Your task to perform on an android device: toggle sleep mode Image 0: 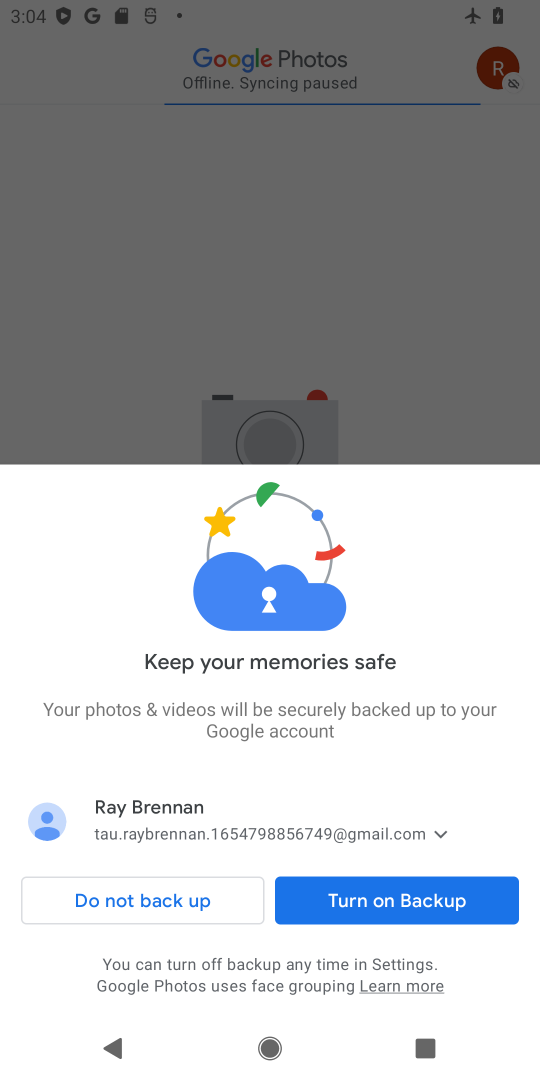
Step 0: press home button
Your task to perform on an android device: toggle sleep mode Image 1: 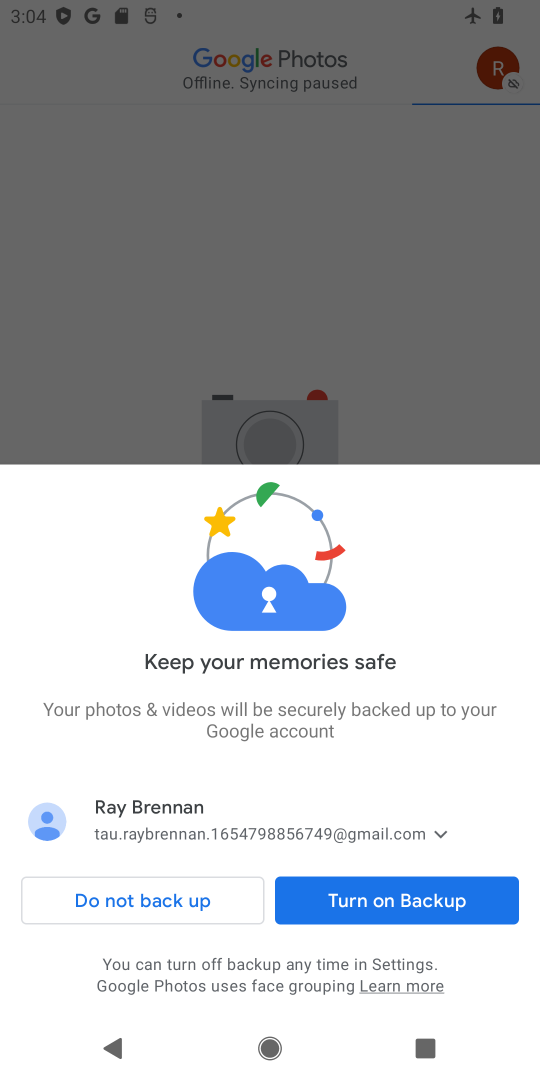
Step 1: press home button
Your task to perform on an android device: toggle sleep mode Image 2: 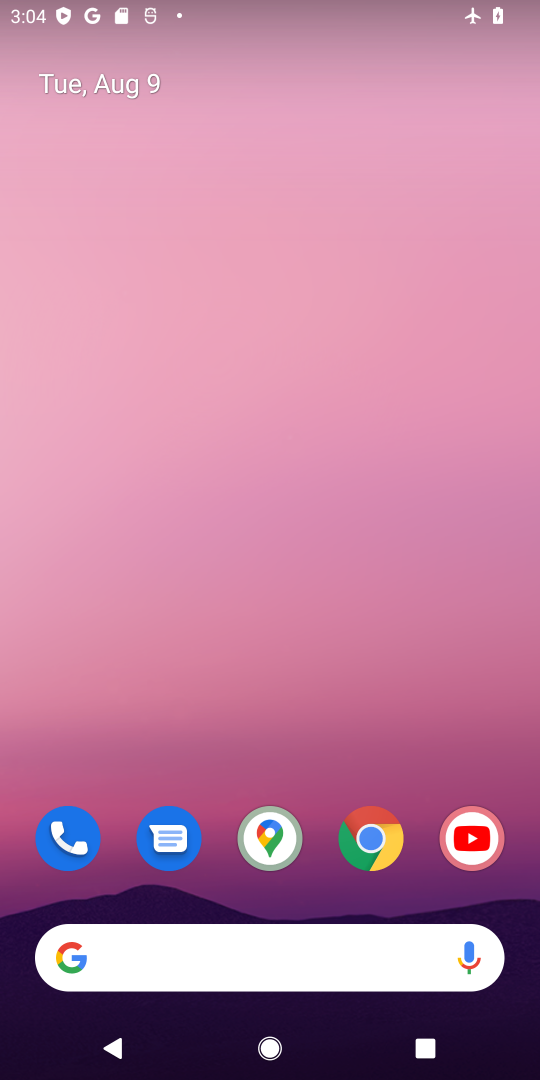
Step 2: drag from (282, 770) to (468, 37)
Your task to perform on an android device: toggle sleep mode Image 3: 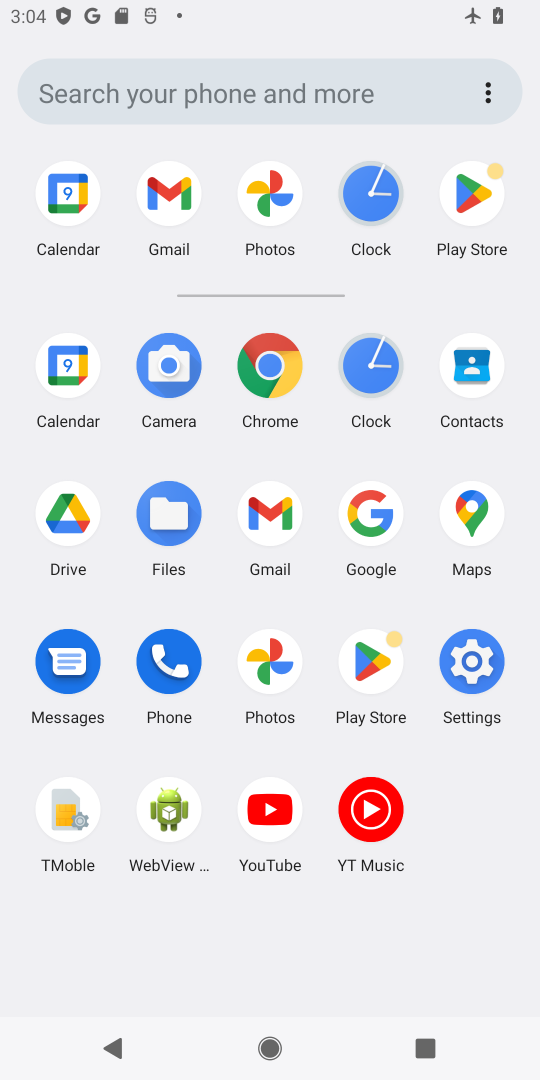
Step 3: click (485, 653)
Your task to perform on an android device: toggle sleep mode Image 4: 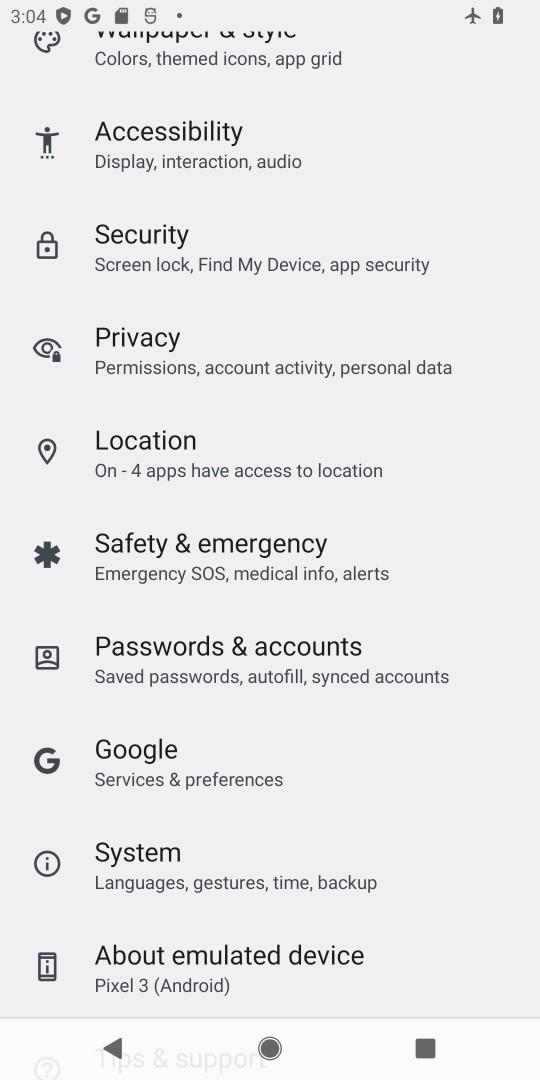
Step 4: drag from (305, 184) to (331, 750)
Your task to perform on an android device: toggle sleep mode Image 5: 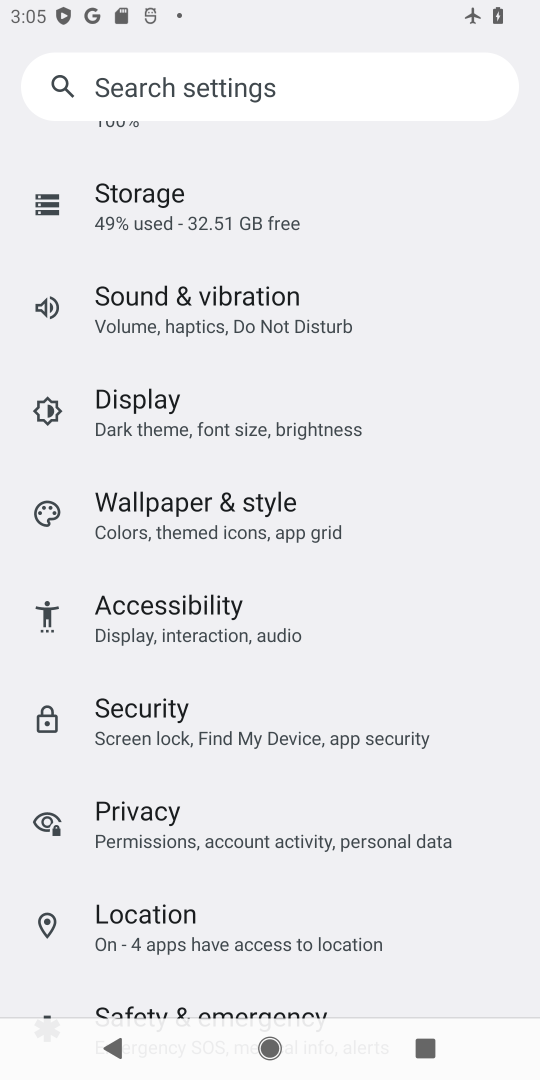
Step 5: click (229, 405)
Your task to perform on an android device: toggle sleep mode Image 6: 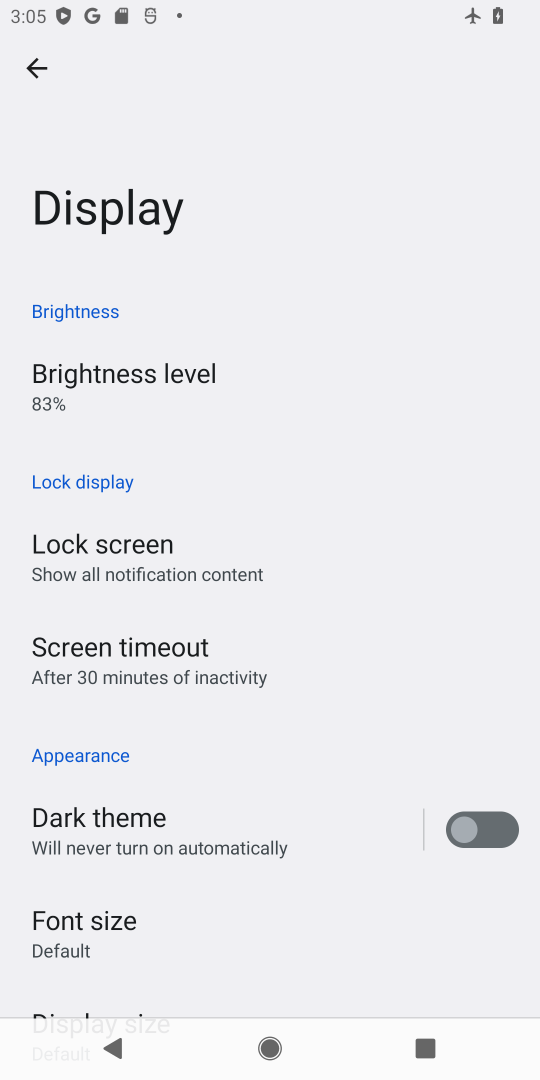
Step 6: drag from (197, 892) to (316, 376)
Your task to perform on an android device: toggle sleep mode Image 7: 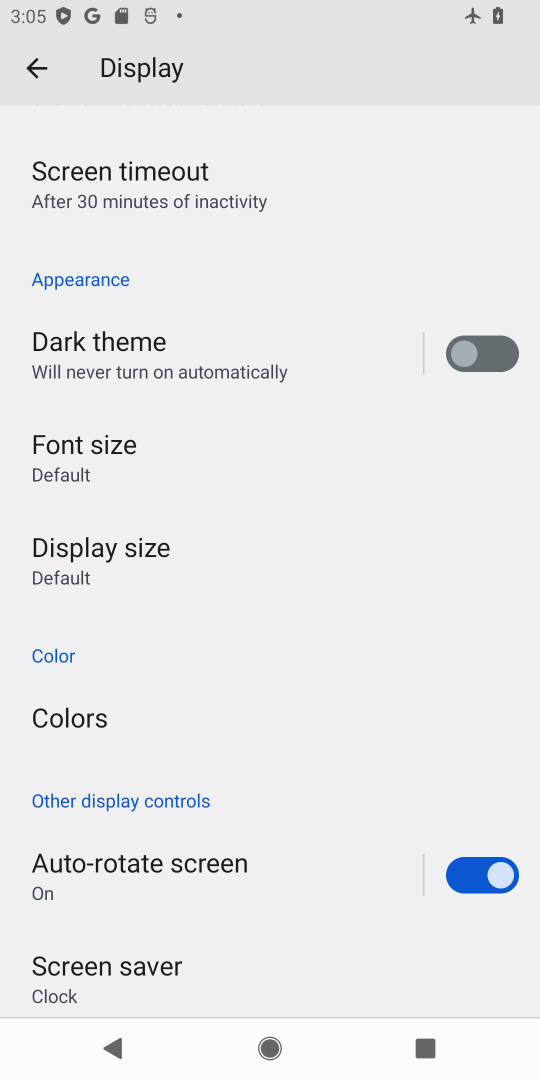
Step 7: click (111, 567)
Your task to perform on an android device: toggle sleep mode Image 8: 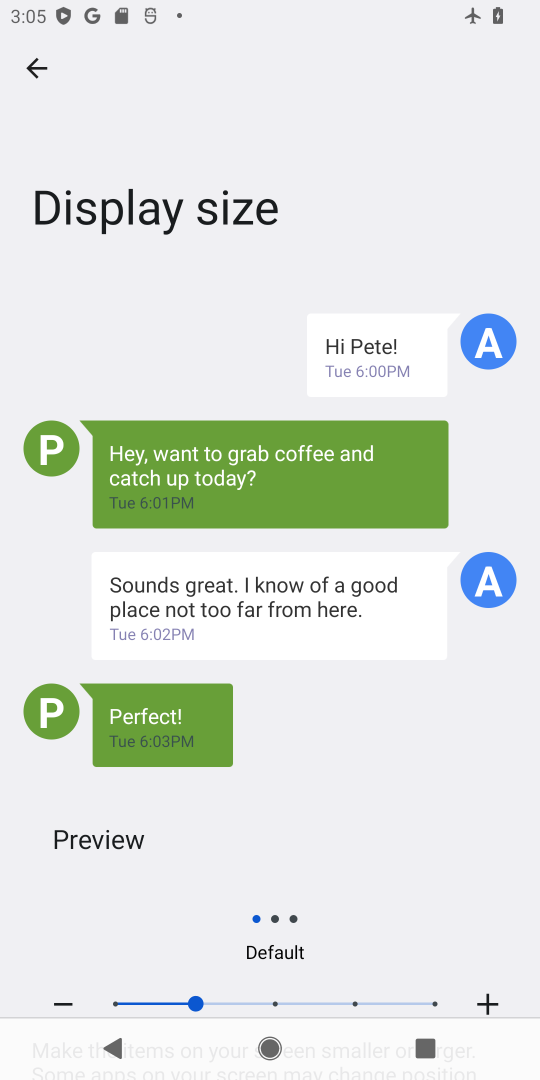
Step 8: task complete